Your task to perform on an android device: Is it going to rain tomorrow? Image 0: 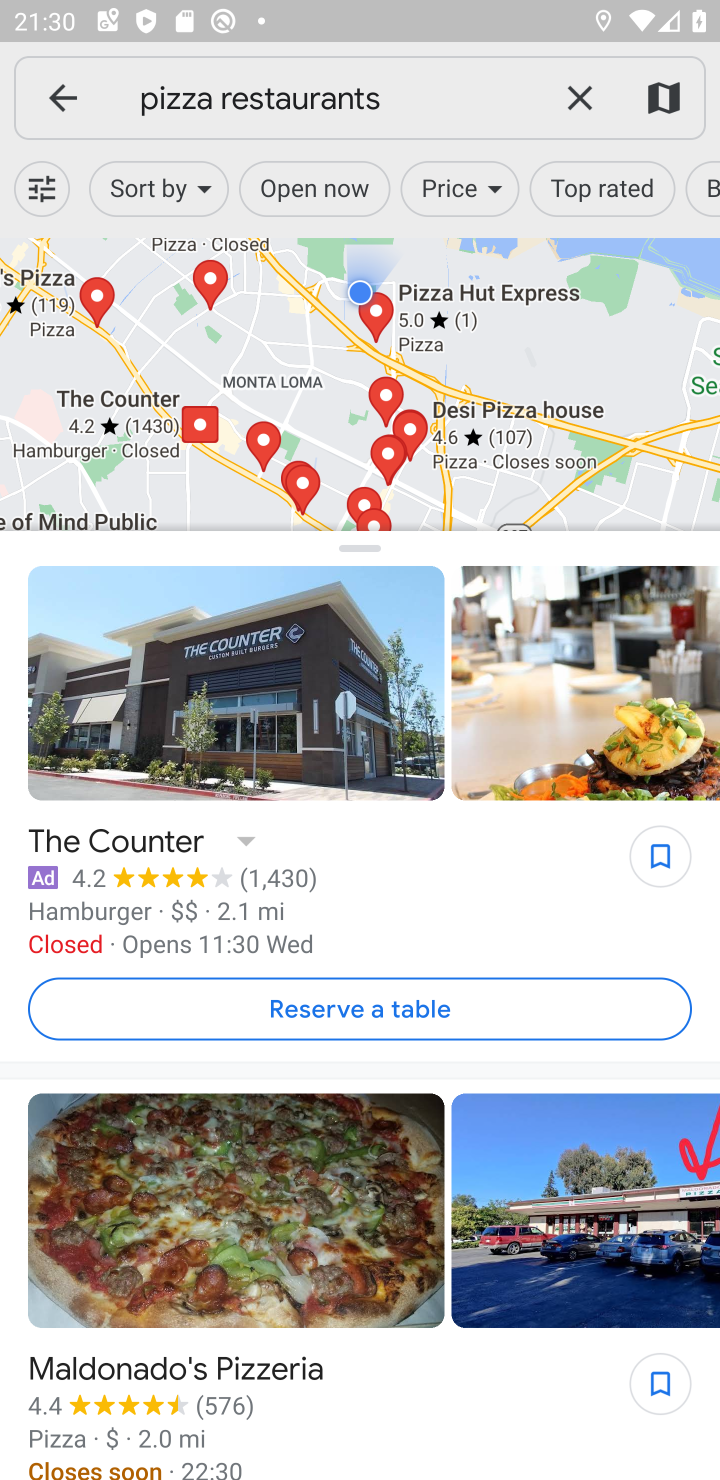
Step 0: press home button
Your task to perform on an android device: Is it going to rain tomorrow? Image 1: 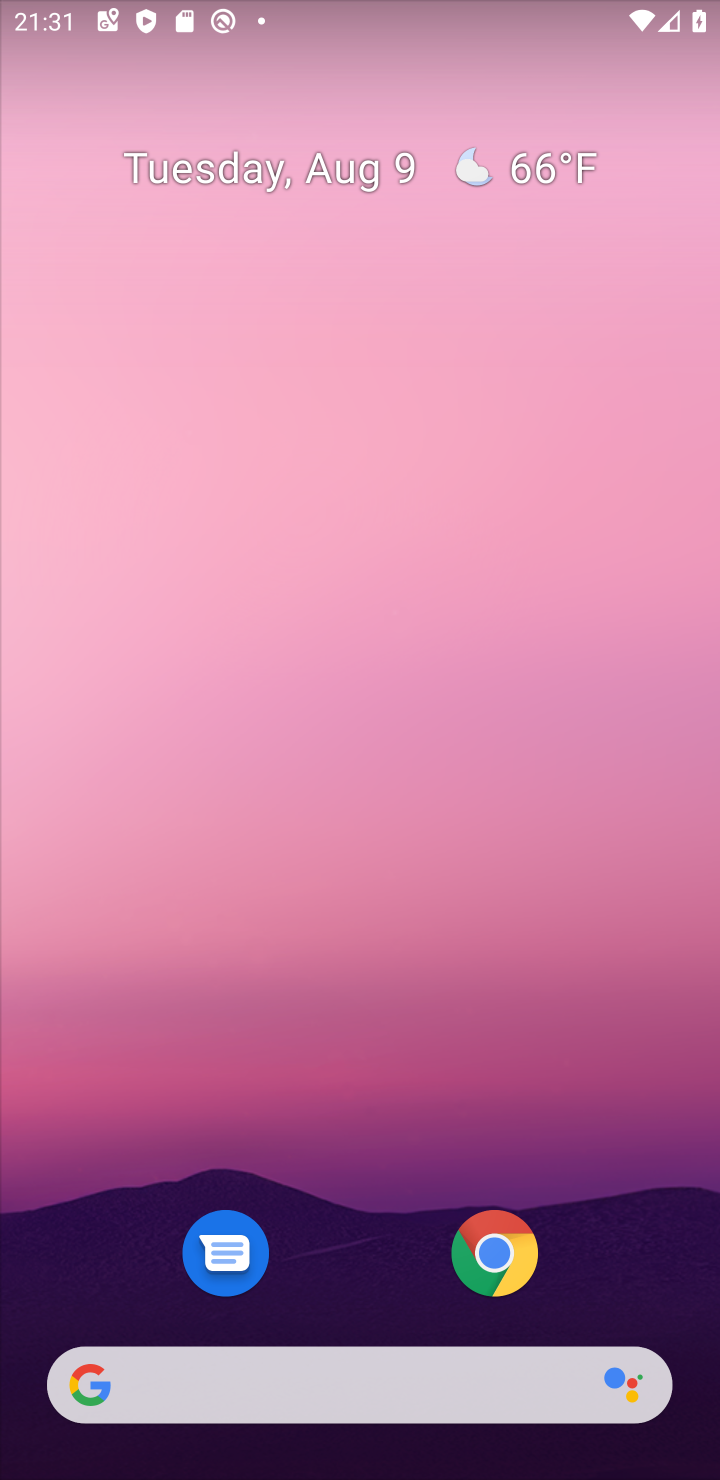
Step 1: click (553, 178)
Your task to perform on an android device: Is it going to rain tomorrow? Image 2: 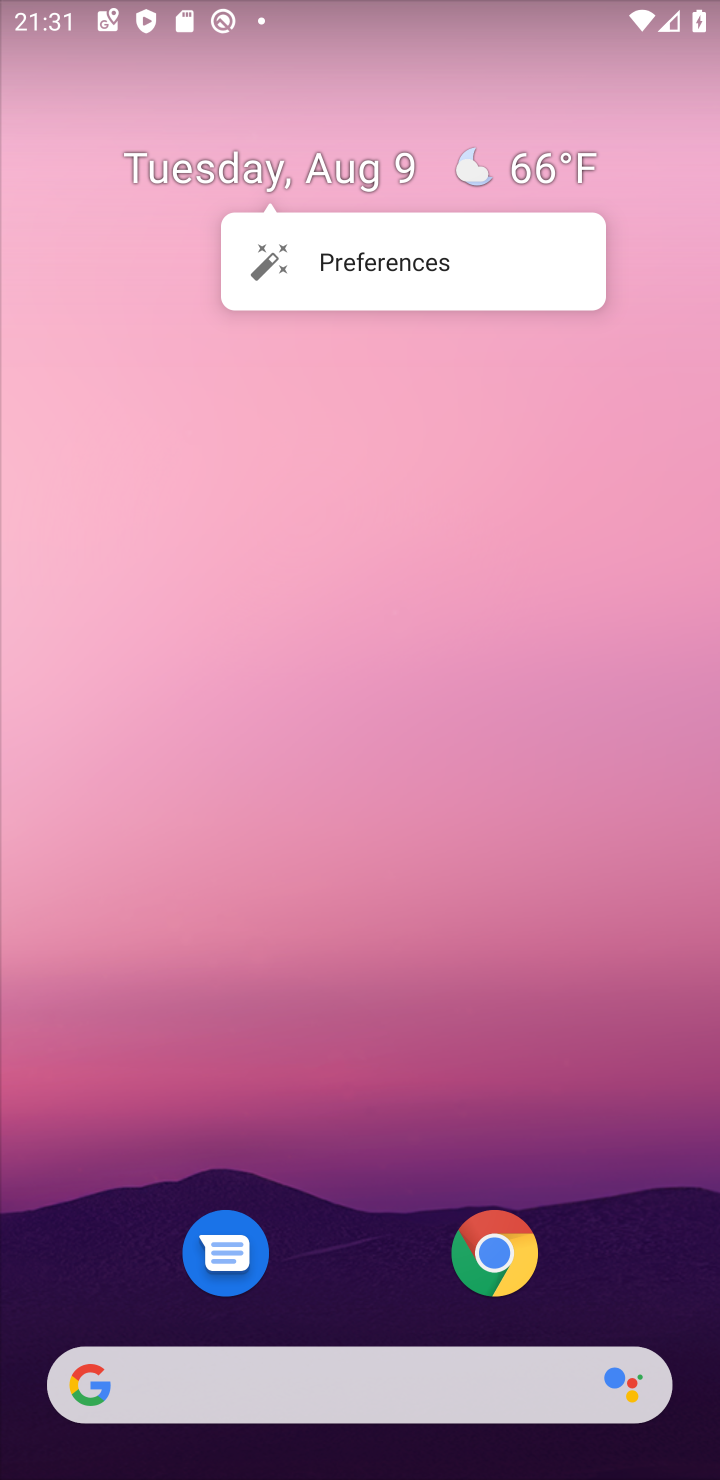
Step 2: click (526, 163)
Your task to perform on an android device: Is it going to rain tomorrow? Image 3: 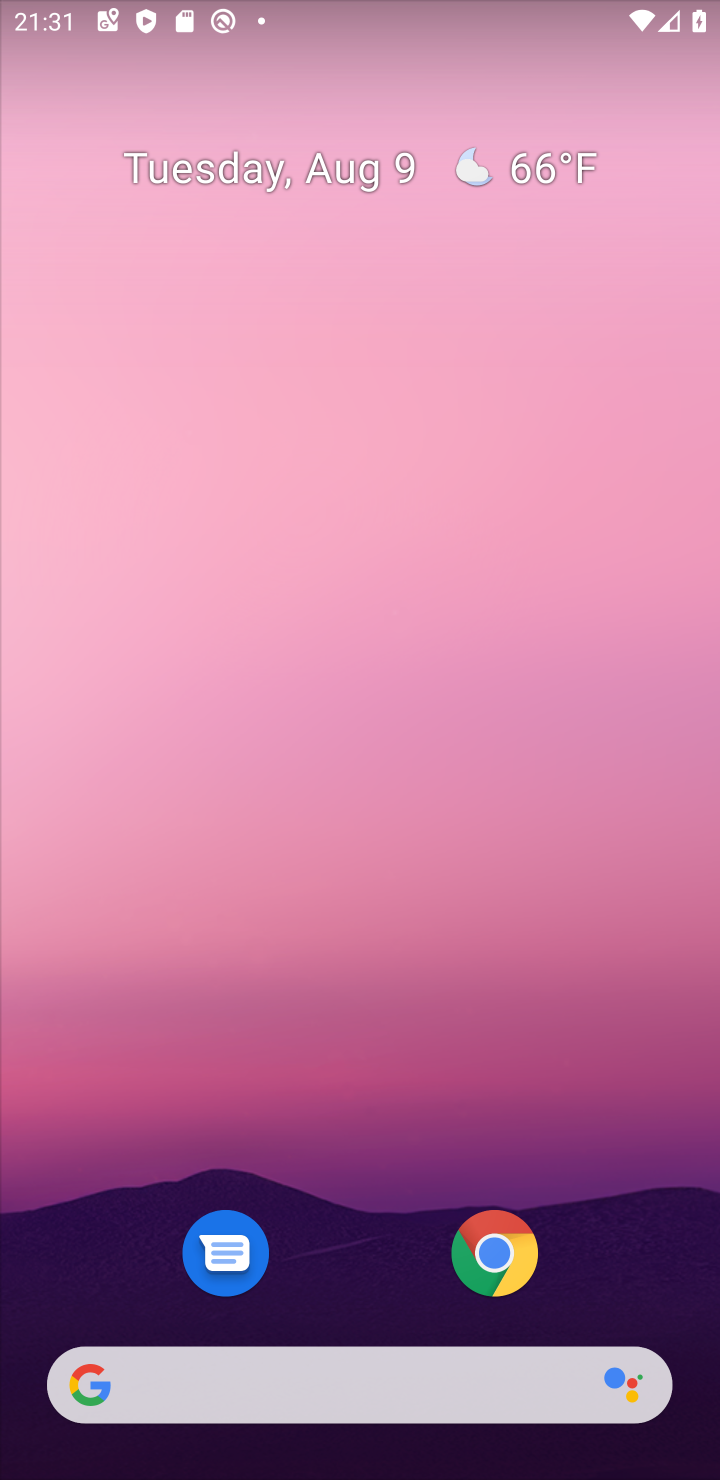
Step 3: click (535, 163)
Your task to perform on an android device: Is it going to rain tomorrow? Image 4: 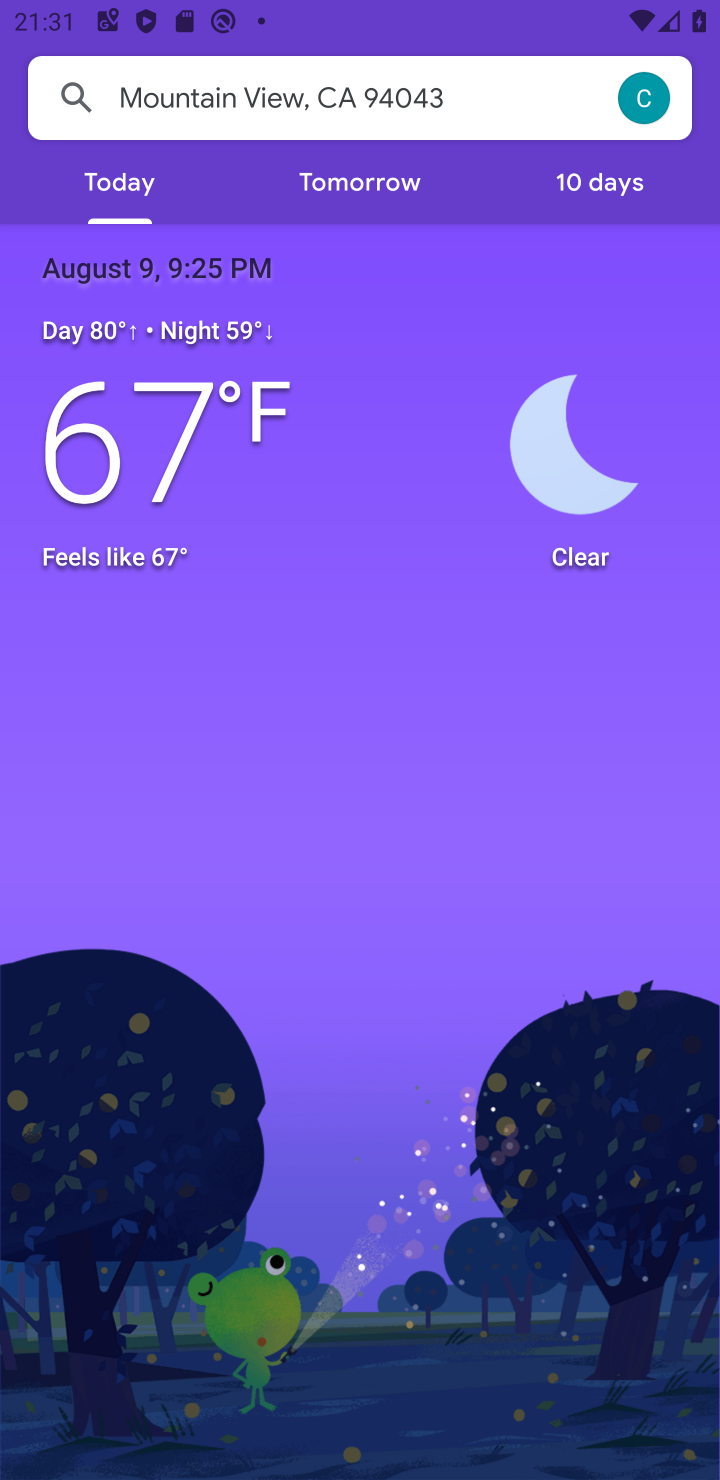
Step 4: click (432, 217)
Your task to perform on an android device: Is it going to rain tomorrow? Image 5: 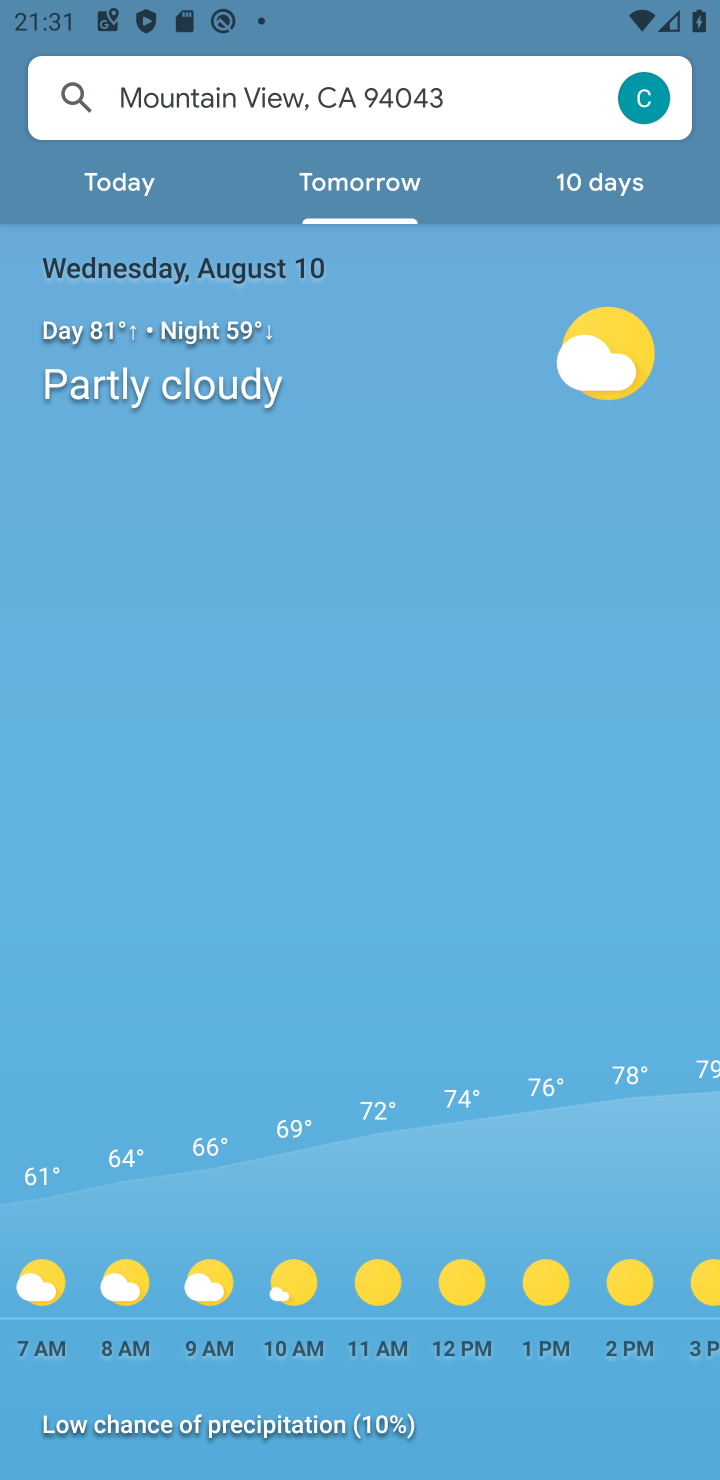
Step 5: task complete